Your task to perform on an android device: What is the news today? Image 0: 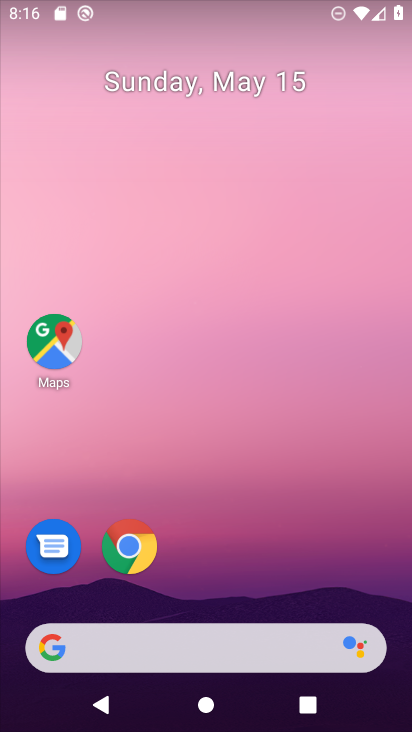
Step 0: click (222, 644)
Your task to perform on an android device: What is the news today? Image 1: 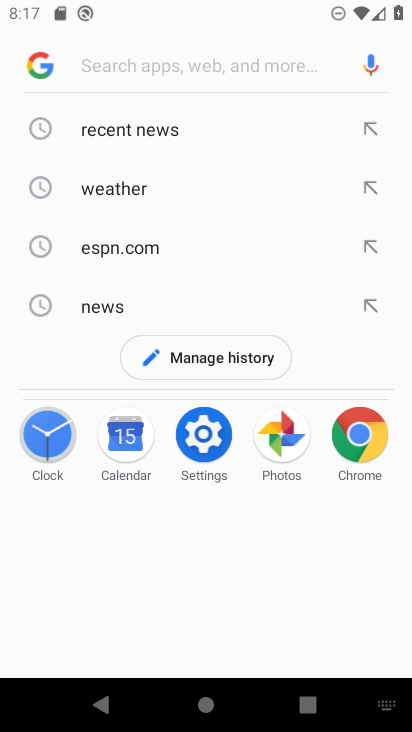
Step 1: click (79, 128)
Your task to perform on an android device: What is the news today? Image 2: 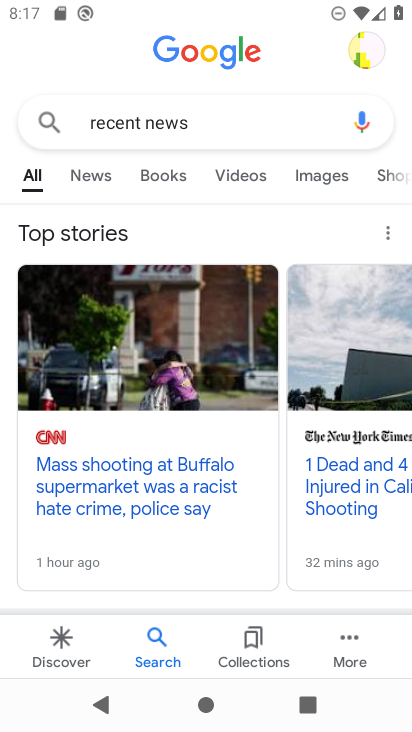
Step 2: click (82, 166)
Your task to perform on an android device: What is the news today? Image 3: 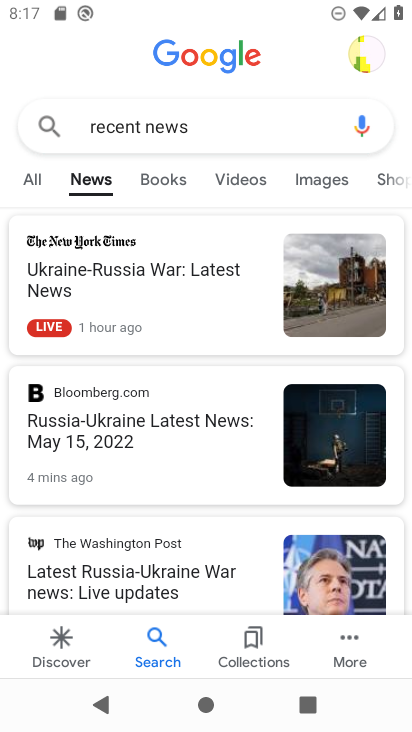
Step 3: task complete